Your task to perform on an android device: Open wifi settings Image 0: 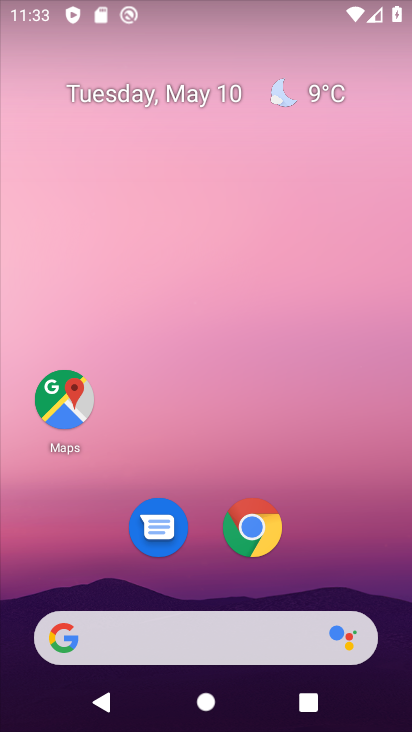
Step 0: drag from (246, 725) to (17, 515)
Your task to perform on an android device: Open wifi settings Image 1: 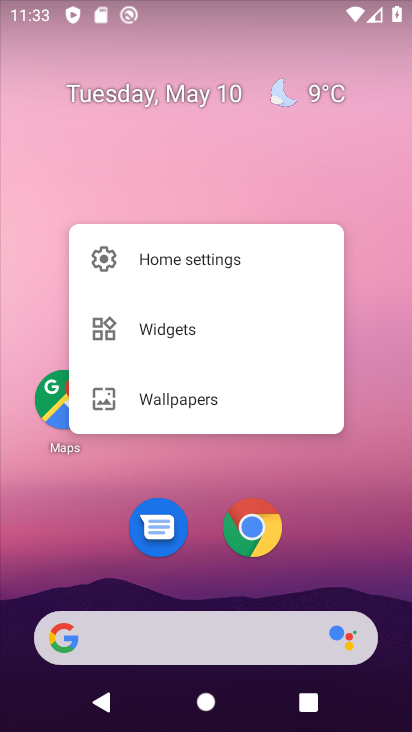
Step 1: click (210, 442)
Your task to perform on an android device: Open wifi settings Image 2: 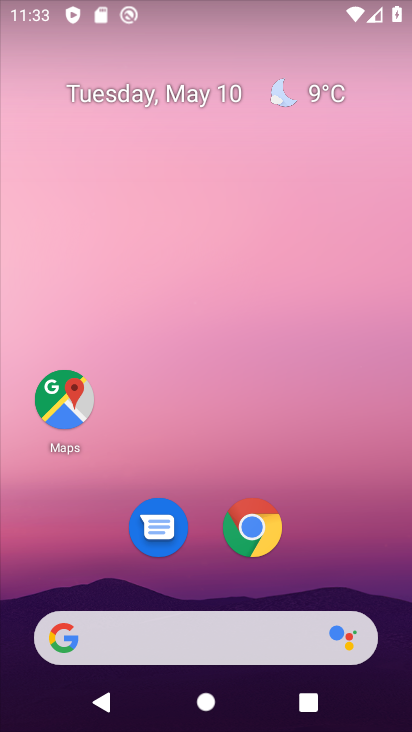
Step 2: drag from (225, 727) to (193, 143)
Your task to perform on an android device: Open wifi settings Image 3: 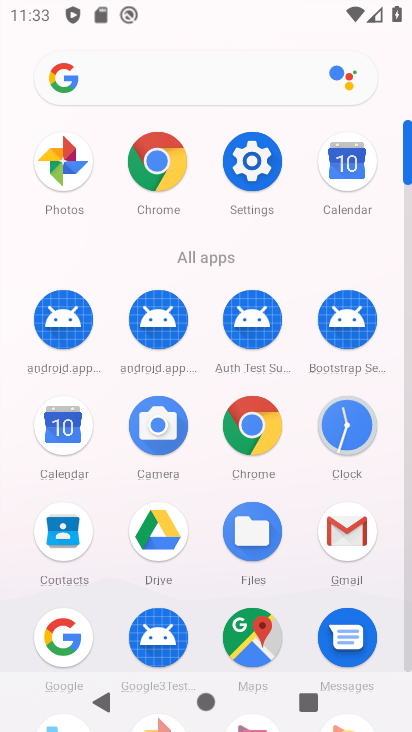
Step 3: click (241, 158)
Your task to perform on an android device: Open wifi settings Image 4: 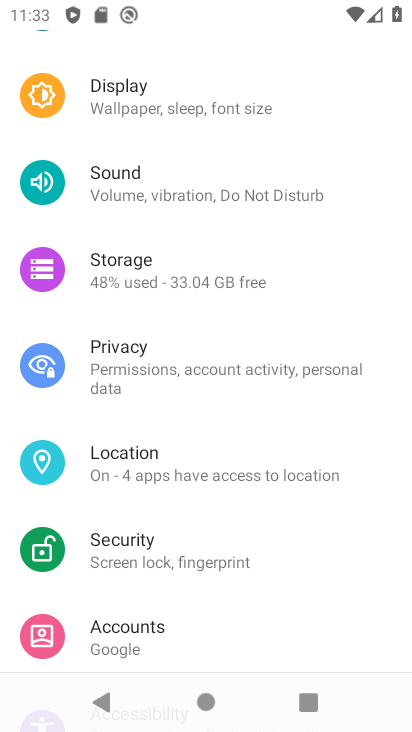
Step 4: drag from (312, 111) to (358, 531)
Your task to perform on an android device: Open wifi settings Image 5: 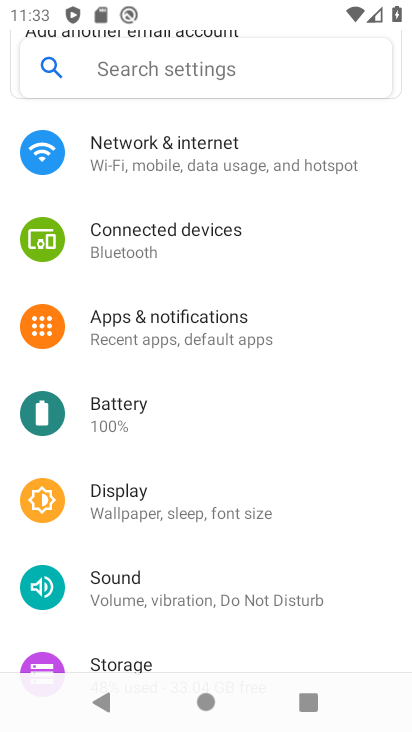
Step 5: click (187, 153)
Your task to perform on an android device: Open wifi settings Image 6: 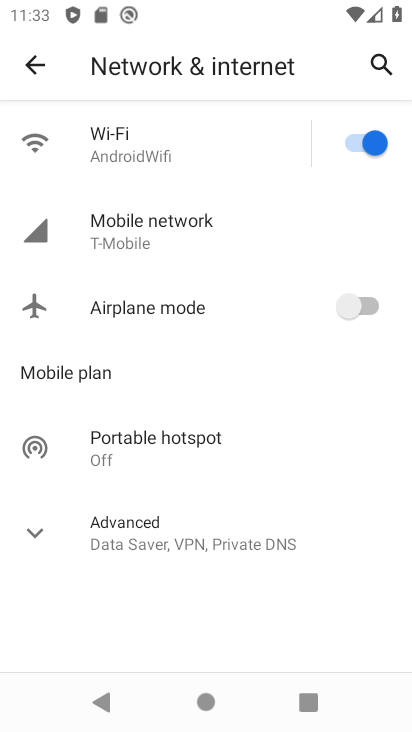
Step 6: click (103, 144)
Your task to perform on an android device: Open wifi settings Image 7: 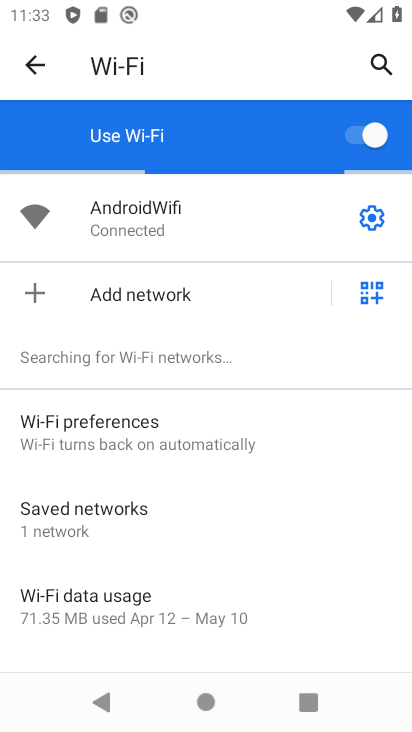
Step 7: task complete